Your task to perform on an android device: make emails show in primary in the gmail app Image 0: 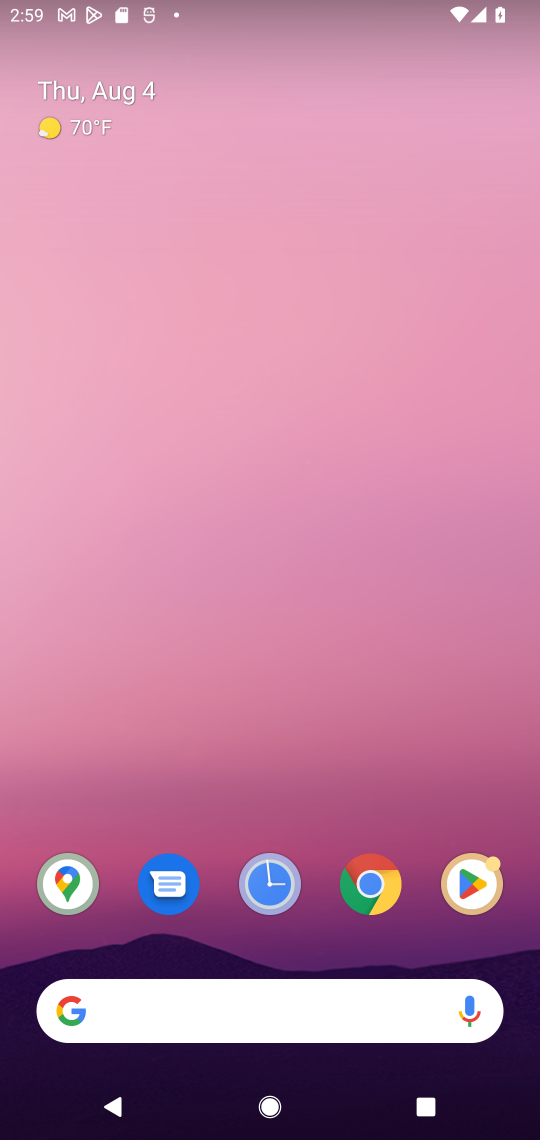
Step 0: task complete